Your task to perform on an android device: Open settings on Google Maps Image 0: 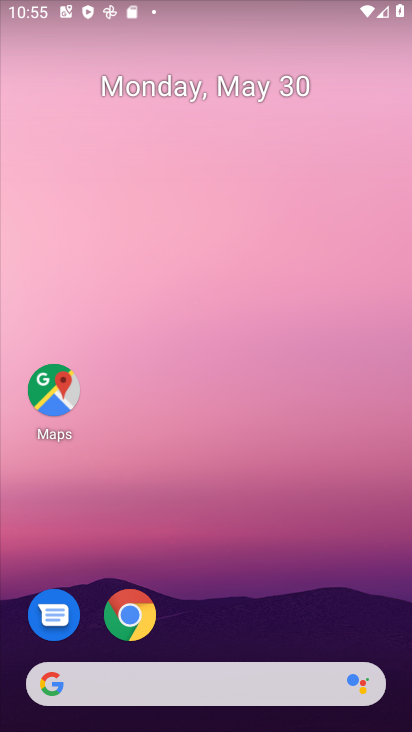
Step 0: click (57, 378)
Your task to perform on an android device: Open settings on Google Maps Image 1: 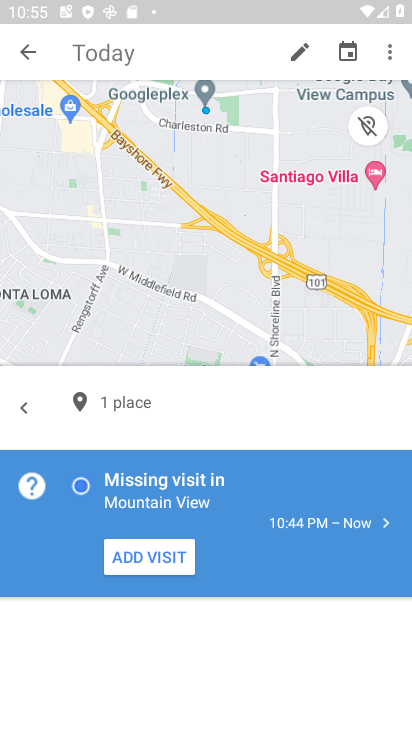
Step 1: click (29, 43)
Your task to perform on an android device: Open settings on Google Maps Image 2: 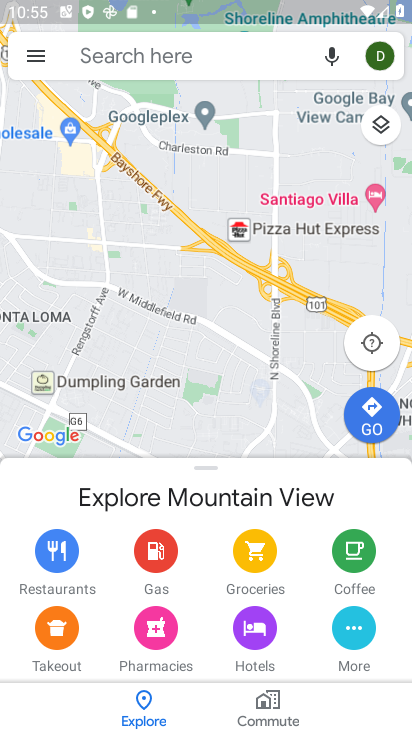
Step 2: click (34, 52)
Your task to perform on an android device: Open settings on Google Maps Image 3: 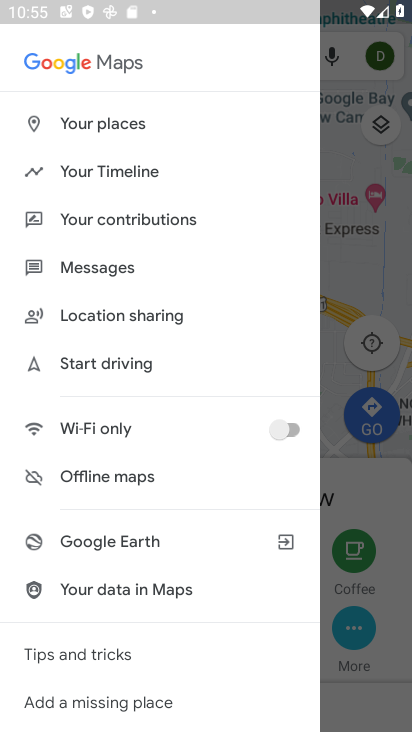
Step 3: drag from (186, 579) to (175, 166)
Your task to perform on an android device: Open settings on Google Maps Image 4: 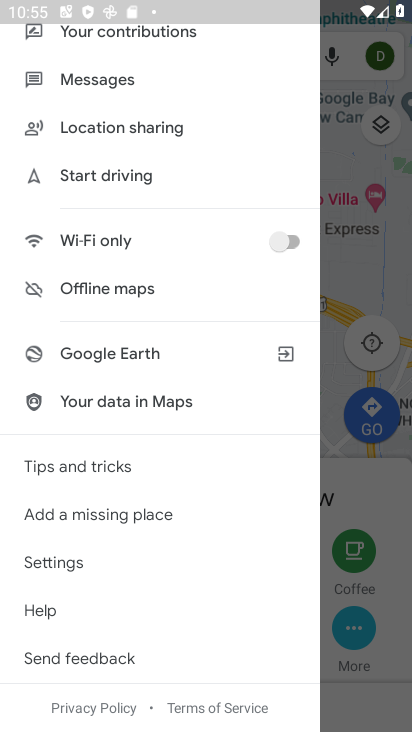
Step 4: click (89, 562)
Your task to perform on an android device: Open settings on Google Maps Image 5: 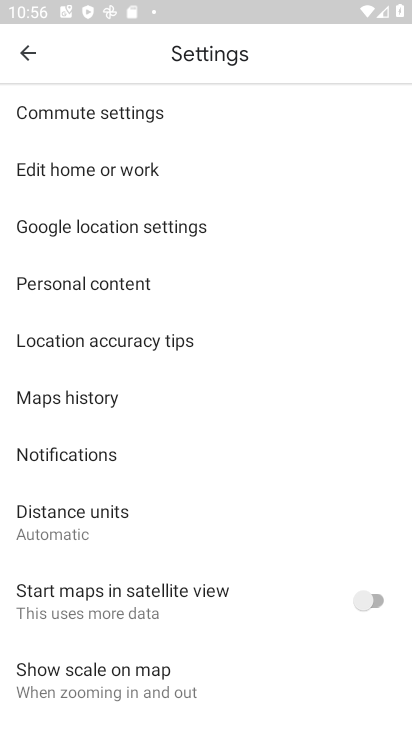
Step 5: task complete